Your task to perform on an android device: Open Google Maps and go to "Timeline" Image 0: 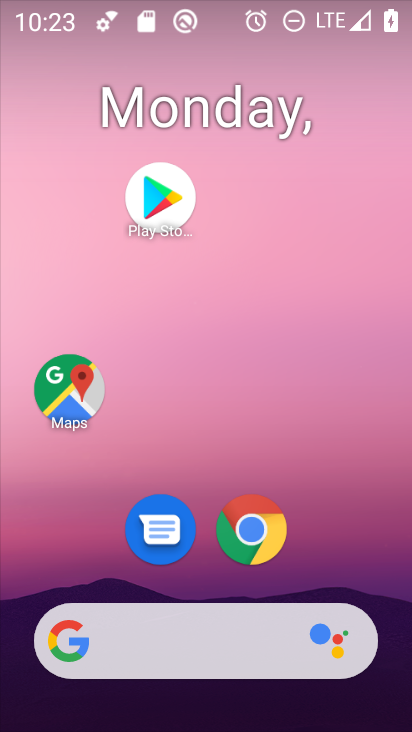
Step 0: click (70, 400)
Your task to perform on an android device: Open Google Maps and go to "Timeline" Image 1: 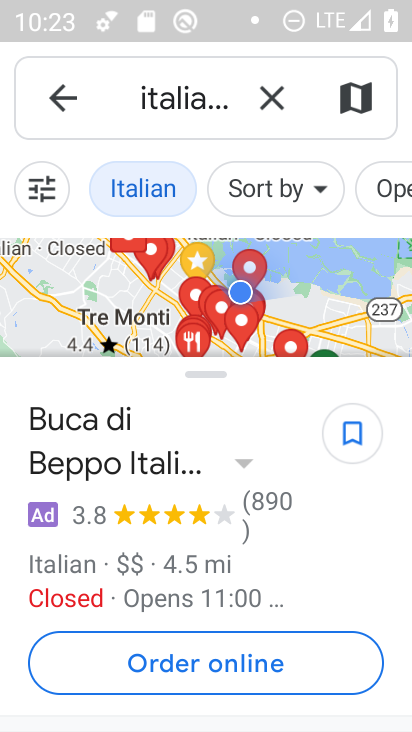
Step 1: click (59, 100)
Your task to perform on an android device: Open Google Maps and go to "Timeline" Image 2: 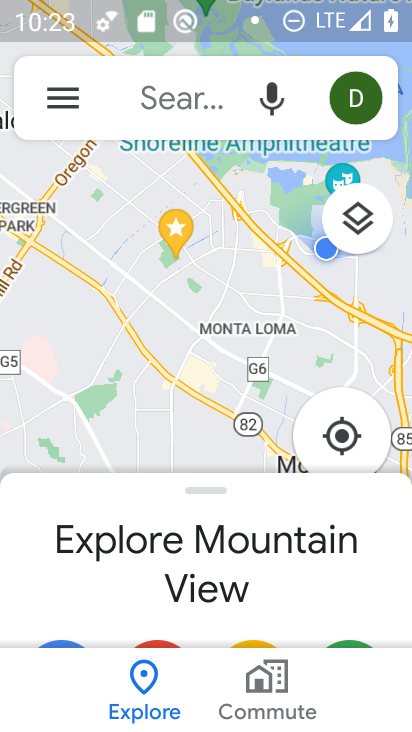
Step 2: click (59, 100)
Your task to perform on an android device: Open Google Maps and go to "Timeline" Image 3: 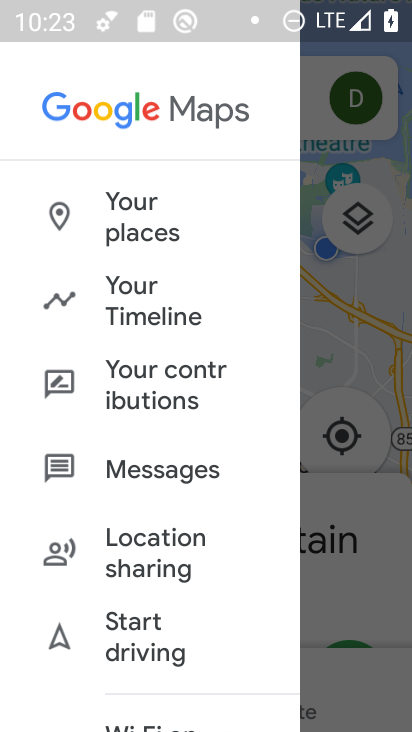
Step 3: click (117, 305)
Your task to perform on an android device: Open Google Maps and go to "Timeline" Image 4: 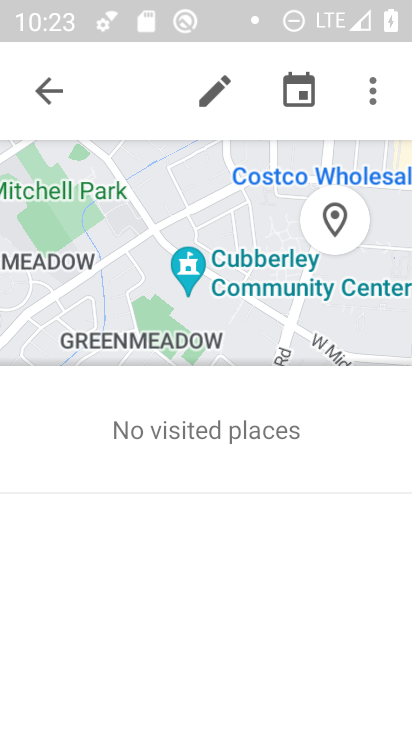
Step 4: task complete